Your task to perform on an android device: turn on the 24-hour format for clock Image 0: 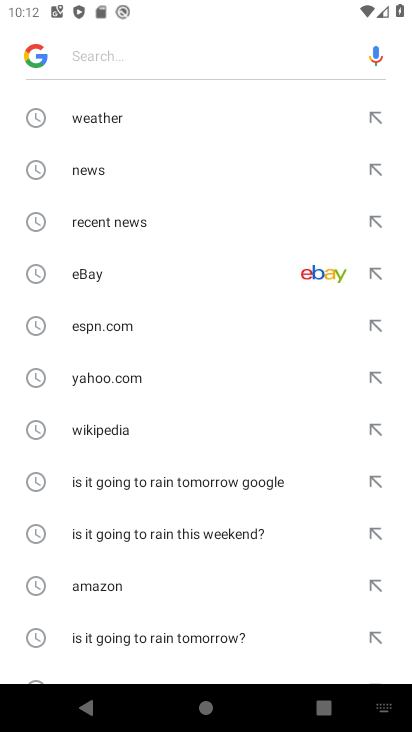
Step 0: press home button
Your task to perform on an android device: turn on the 24-hour format for clock Image 1: 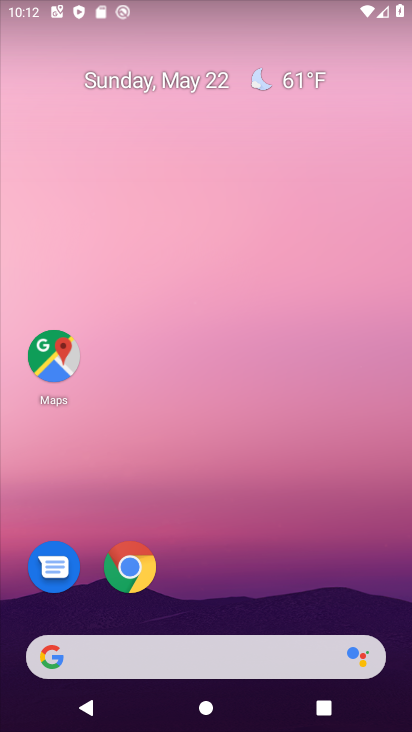
Step 1: drag from (214, 609) to (108, 22)
Your task to perform on an android device: turn on the 24-hour format for clock Image 2: 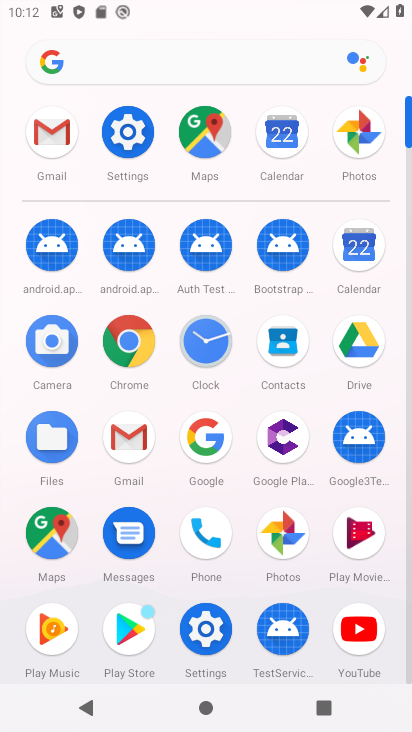
Step 2: click (204, 359)
Your task to perform on an android device: turn on the 24-hour format for clock Image 3: 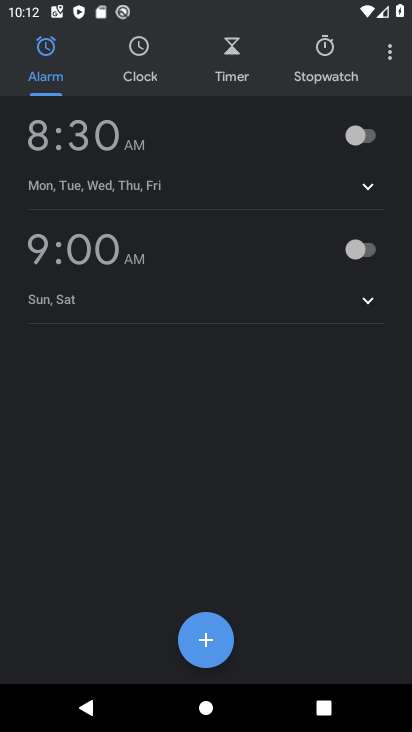
Step 3: click (388, 55)
Your task to perform on an android device: turn on the 24-hour format for clock Image 4: 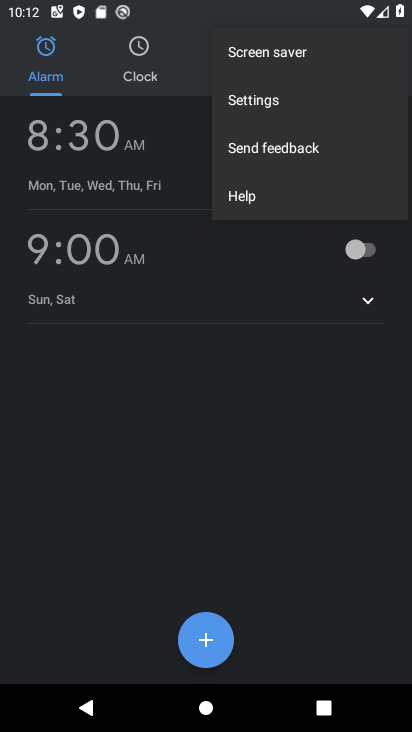
Step 4: click (275, 99)
Your task to perform on an android device: turn on the 24-hour format for clock Image 5: 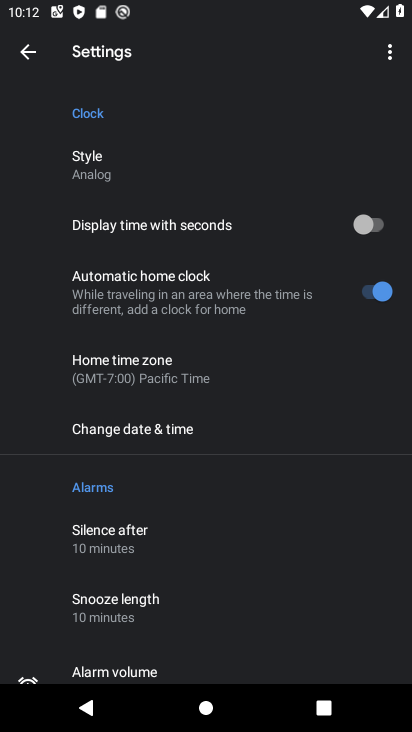
Step 5: click (127, 435)
Your task to perform on an android device: turn on the 24-hour format for clock Image 6: 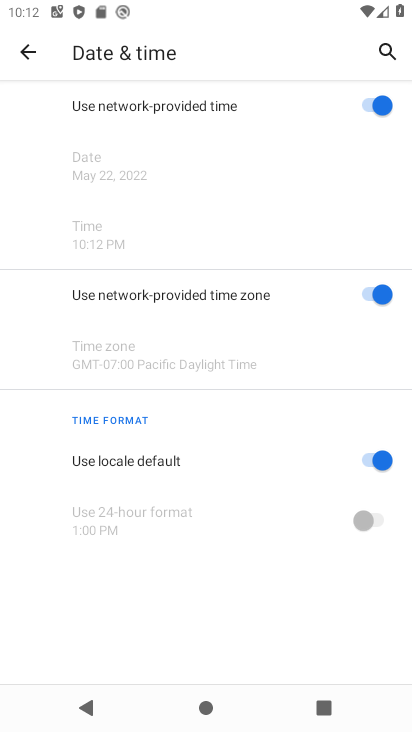
Step 6: click (366, 459)
Your task to perform on an android device: turn on the 24-hour format for clock Image 7: 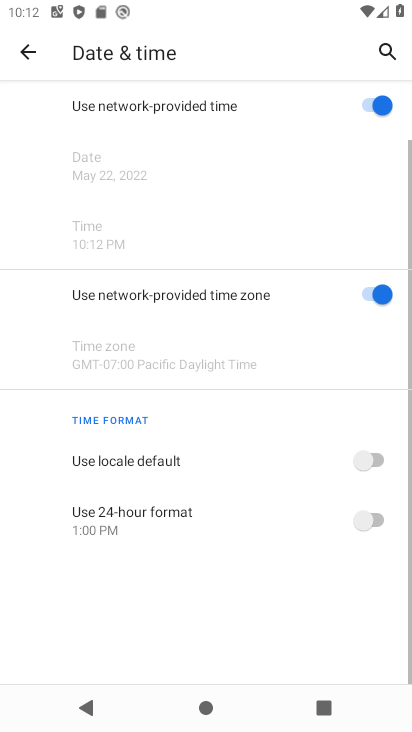
Step 7: click (372, 512)
Your task to perform on an android device: turn on the 24-hour format for clock Image 8: 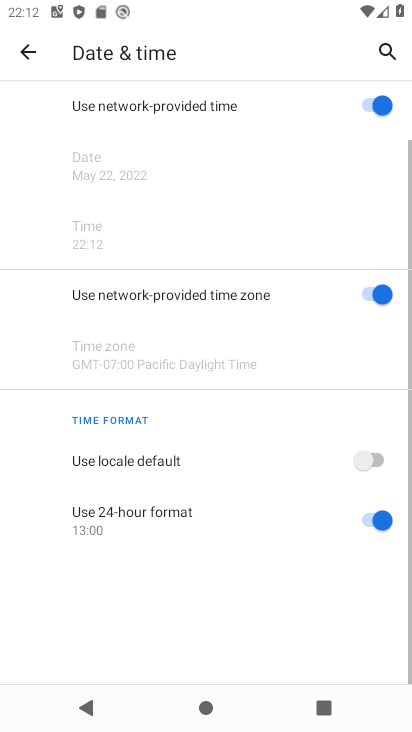
Step 8: task complete